Your task to perform on an android device: Go to Android settings Image 0: 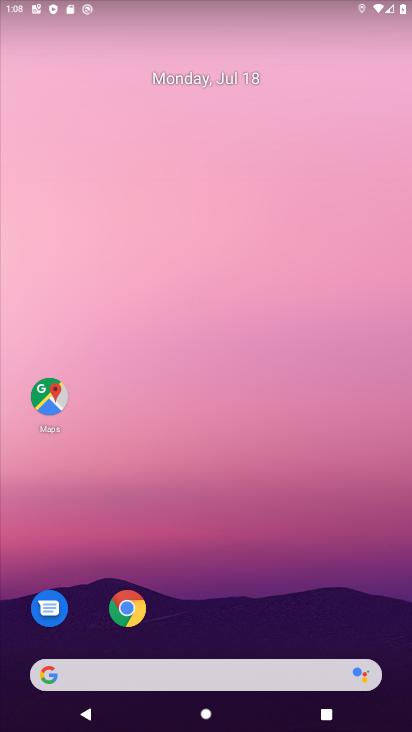
Step 0: drag from (302, 618) to (232, 13)
Your task to perform on an android device: Go to Android settings Image 1: 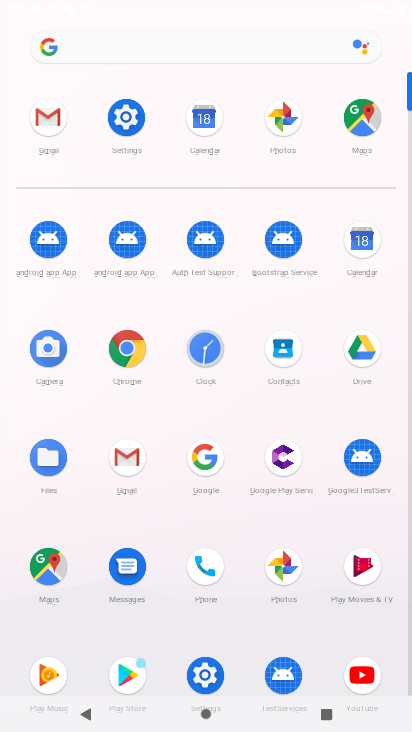
Step 1: click (129, 123)
Your task to perform on an android device: Go to Android settings Image 2: 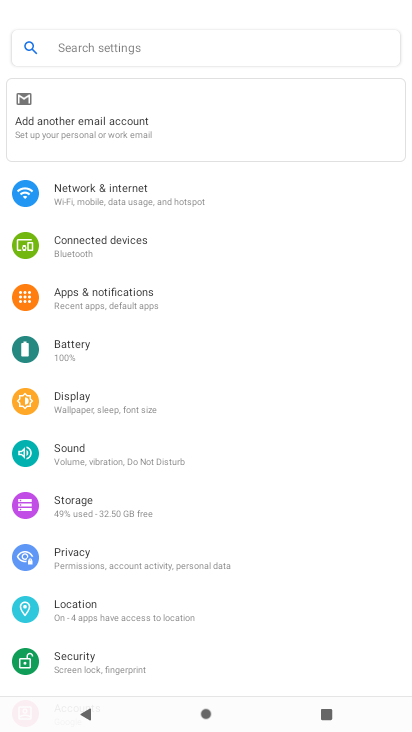
Step 2: task complete